Your task to perform on an android device: Go to Yahoo.com Image 0: 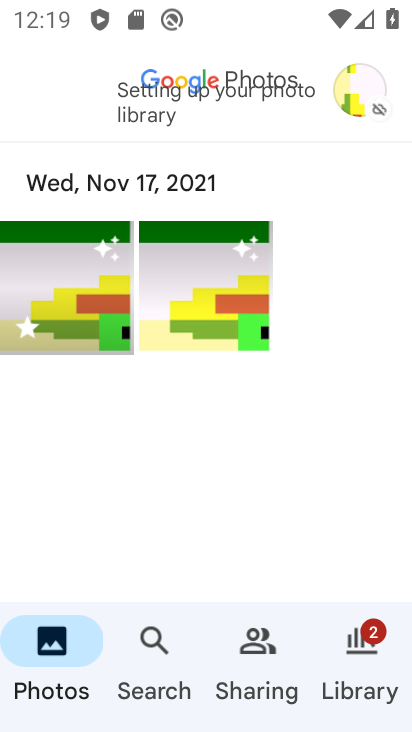
Step 0: press home button
Your task to perform on an android device: Go to Yahoo.com Image 1: 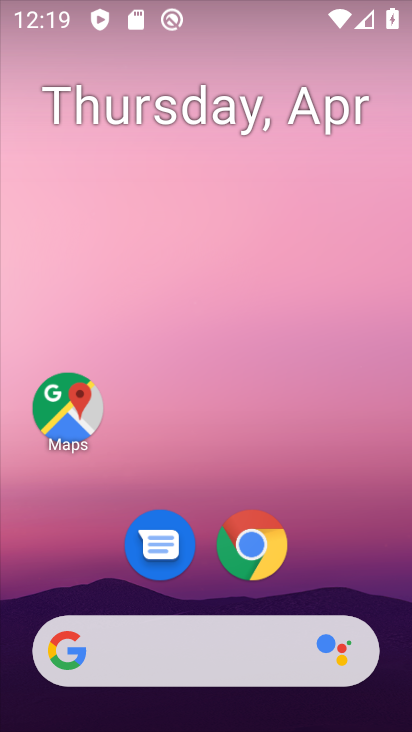
Step 1: click (261, 553)
Your task to perform on an android device: Go to Yahoo.com Image 2: 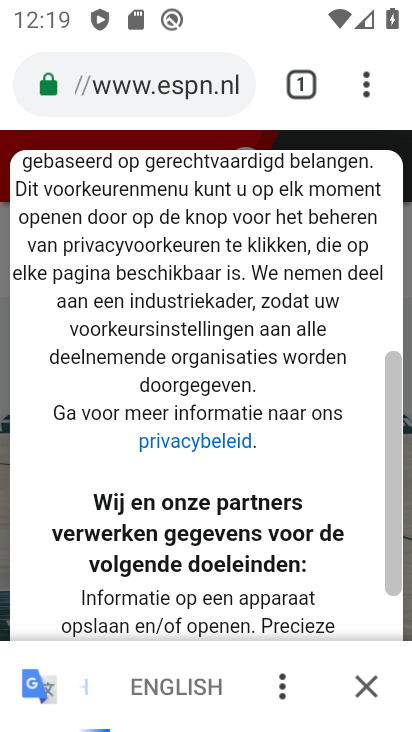
Step 2: click (217, 83)
Your task to perform on an android device: Go to Yahoo.com Image 3: 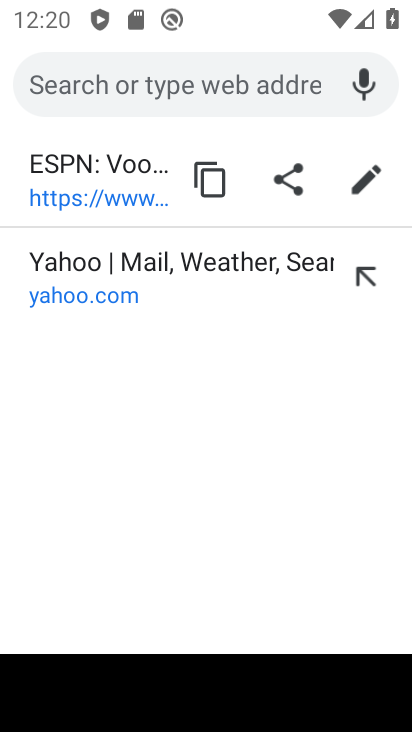
Step 3: click (60, 298)
Your task to perform on an android device: Go to Yahoo.com Image 4: 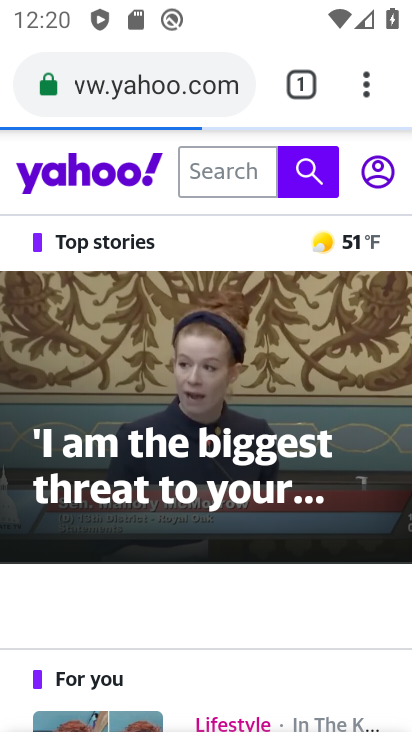
Step 4: task complete